Your task to perform on an android device: Empty the shopping cart on walmart.com. Add "usb-c to usb-a" to the cart on walmart.com Image 0: 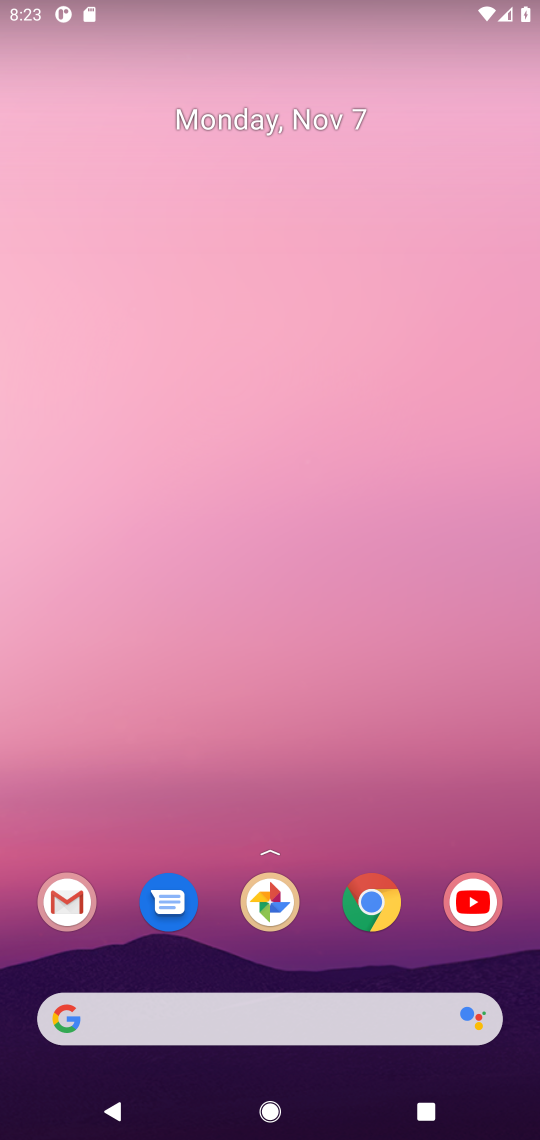
Step 0: click (372, 914)
Your task to perform on an android device: Empty the shopping cart on walmart.com. Add "usb-c to usb-a" to the cart on walmart.com Image 1: 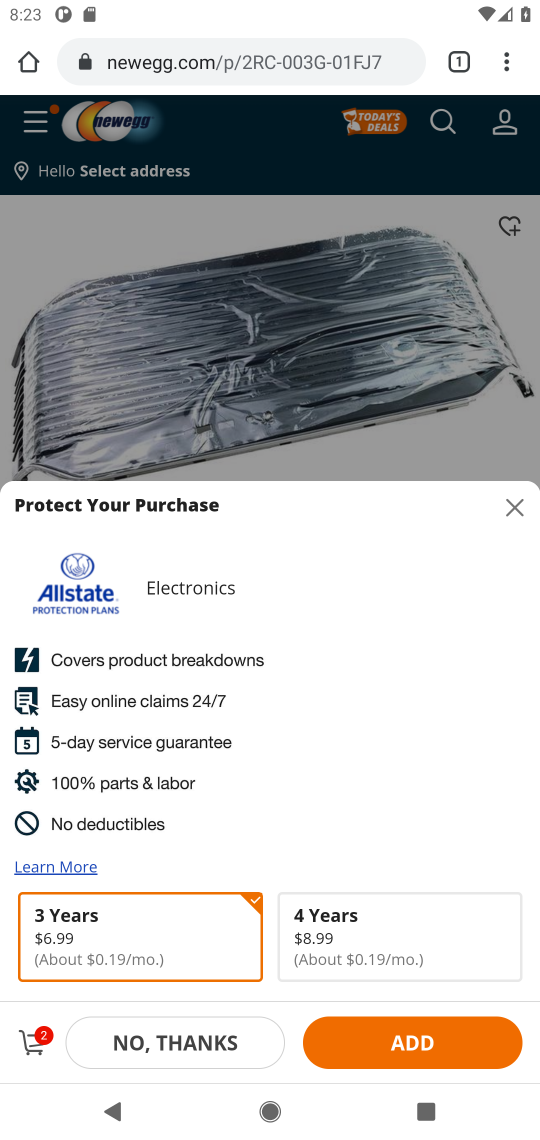
Step 1: click (222, 62)
Your task to perform on an android device: Empty the shopping cart on walmart.com. Add "usb-c to usb-a" to the cart on walmart.com Image 2: 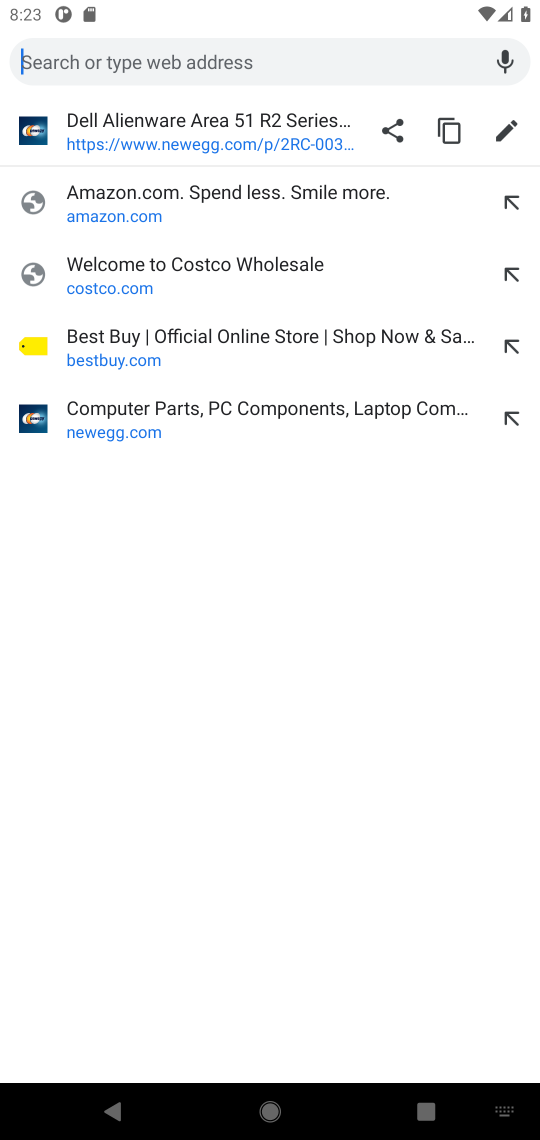
Step 2: type "walmart.com"
Your task to perform on an android device: Empty the shopping cart on walmart.com. Add "usb-c to usb-a" to the cart on walmart.com Image 3: 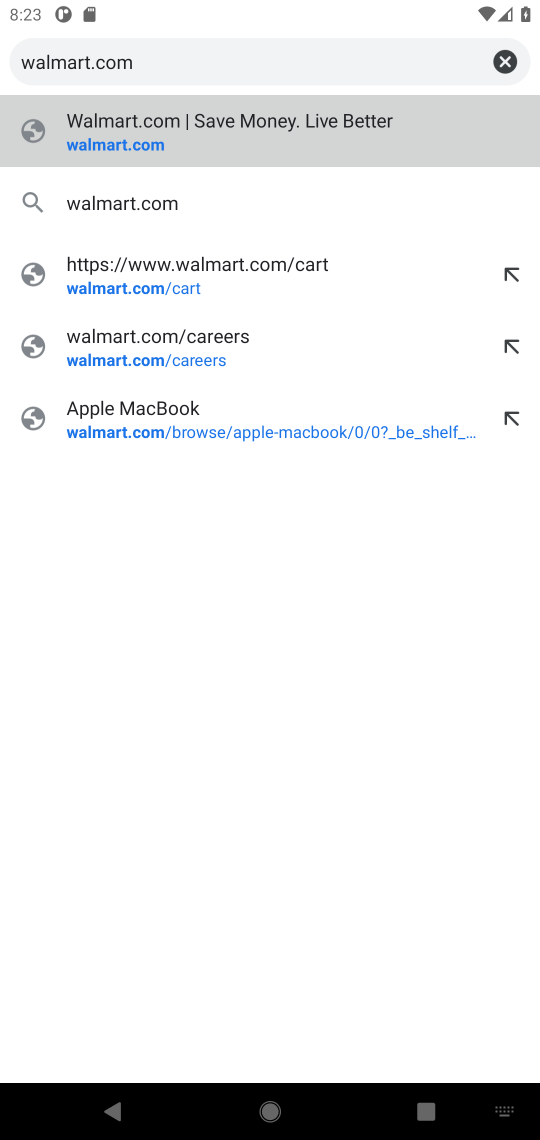
Step 3: click (122, 140)
Your task to perform on an android device: Empty the shopping cart on walmart.com. Add "usb-c to usb-a" to the cart on walmart.com Image 4: 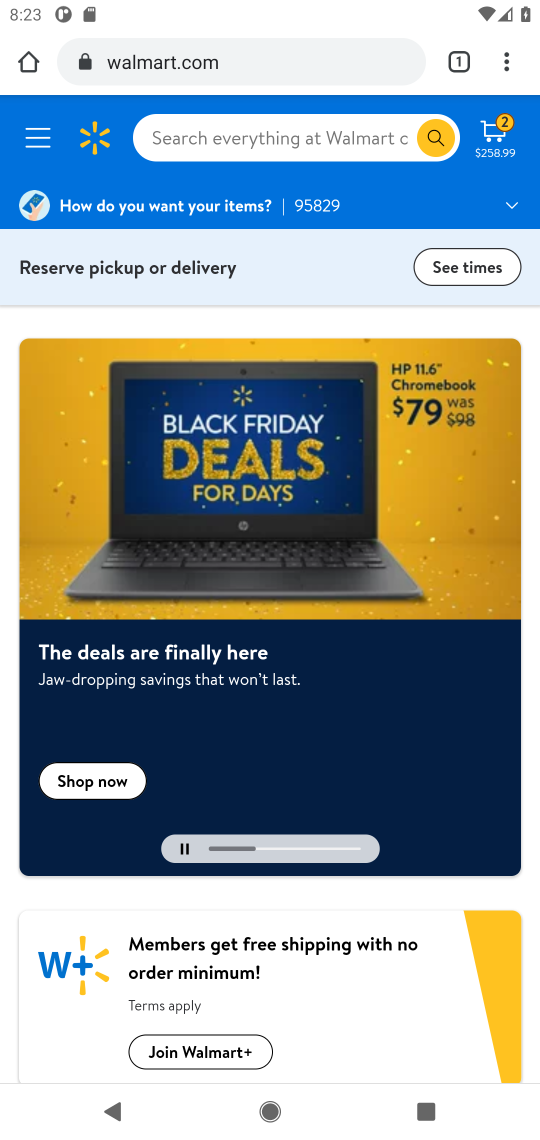
Step 4: click (491, 139)
Your task to perform on an android device: Empty the shopping cart on walmart.com. Add "usb-c to usb-a" to the cart on walmart.com Image 5: 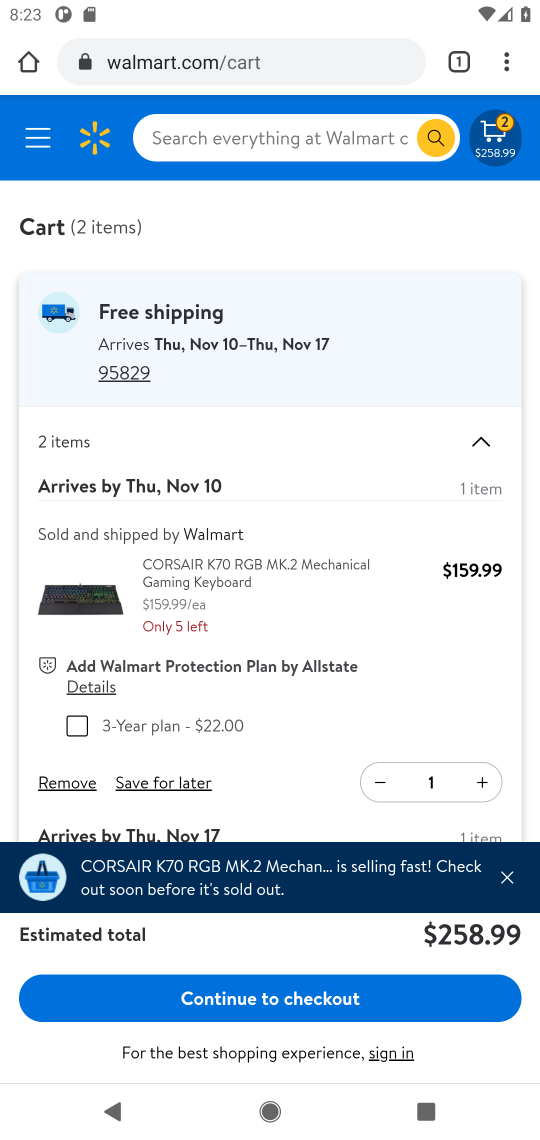
Step 5: click (77, 792)
Your task to perform on an android device: Empty the shopping cart on walmart.com. Add "usb-c to usb-a" to the cart on walmart.com Image 6: 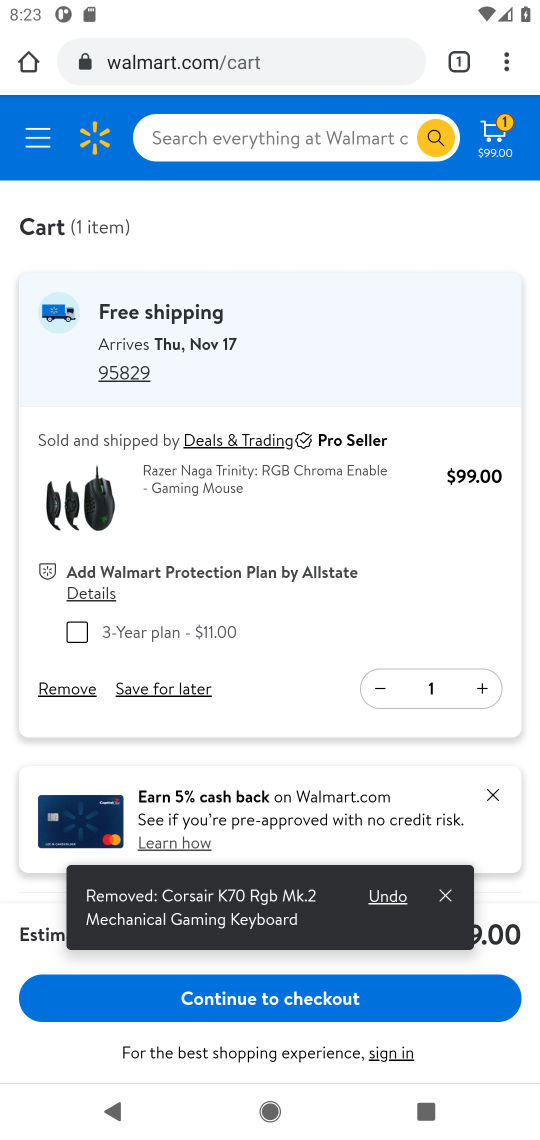
Step 6: click (54, 692)
Your task to perform on an android device: Empty the shopping cart on walmart.com. Add "usb-c to usb-a" to the cart on walmart.com Image 7: 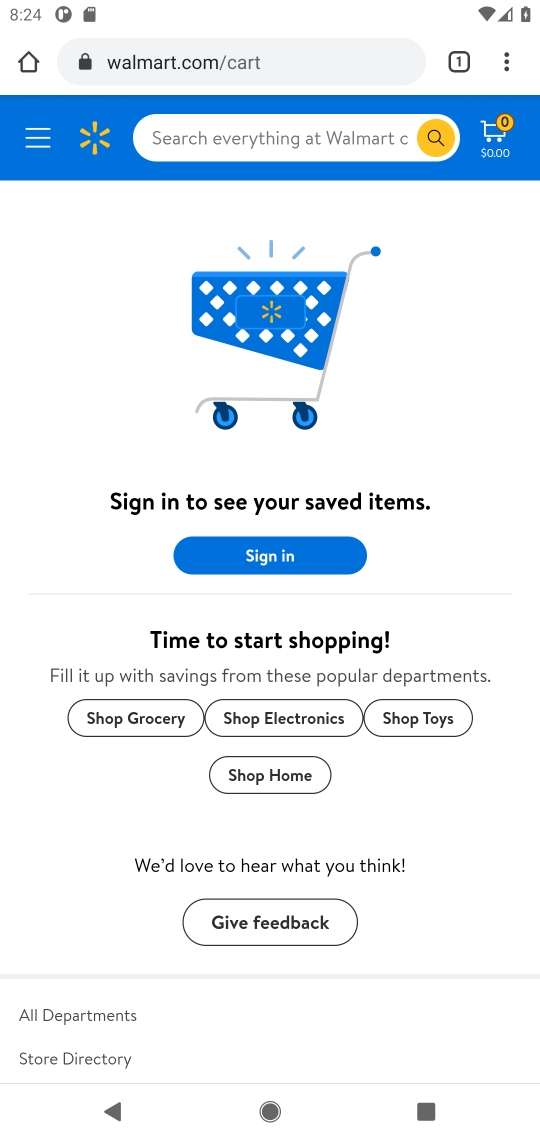
Step 7: click (263, 140)
Your task to perform on an android device: Empty the shopping cart on walmart.com. Add "usb-c to usb-a" to the cart on walmart.com Image 8: 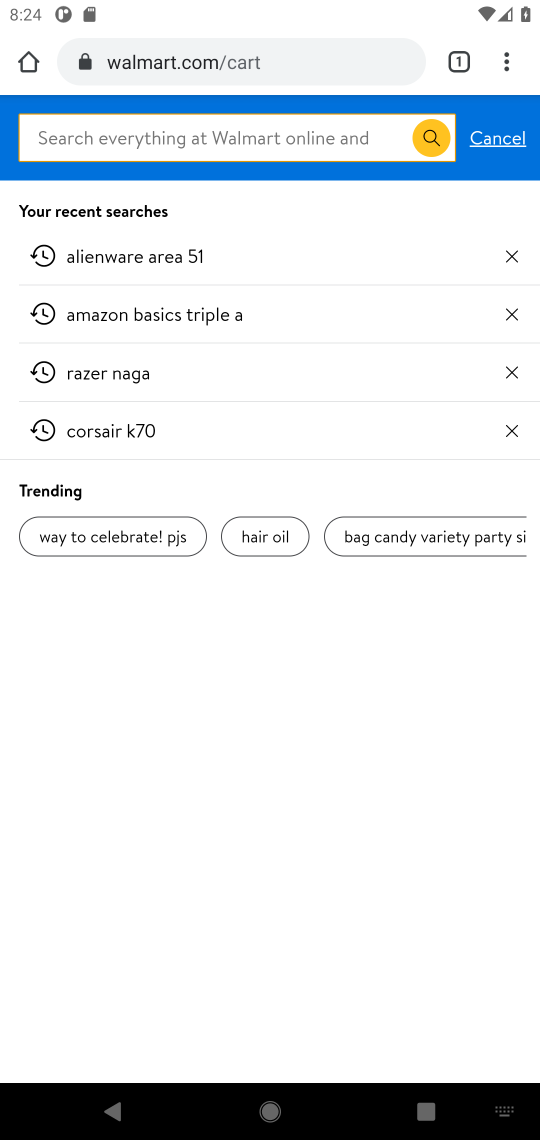
Step 8: type "usb-c to usb-a"
Your task to perform on an android device: Empty the shopping cart on walmart.com. Add "usb-c to usb-a" to the cart on walmart.com Image 9: 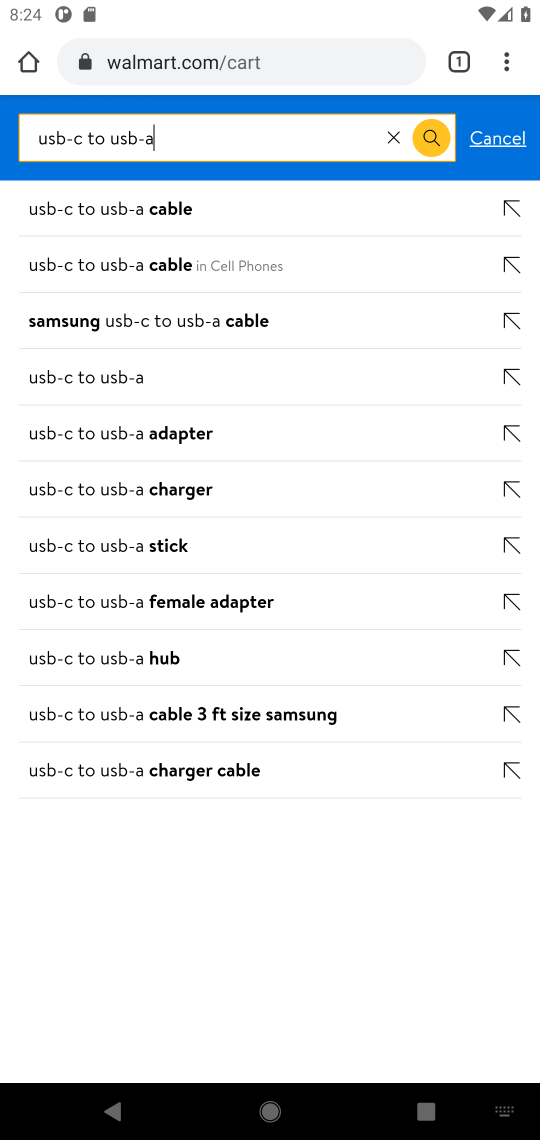
Step 9: click (433, 140)
Your task to perform on an android device: Empty the shopping cart on walmart.com. Add "usb-c to usb-a" to the cart on walmart.com Image 10: 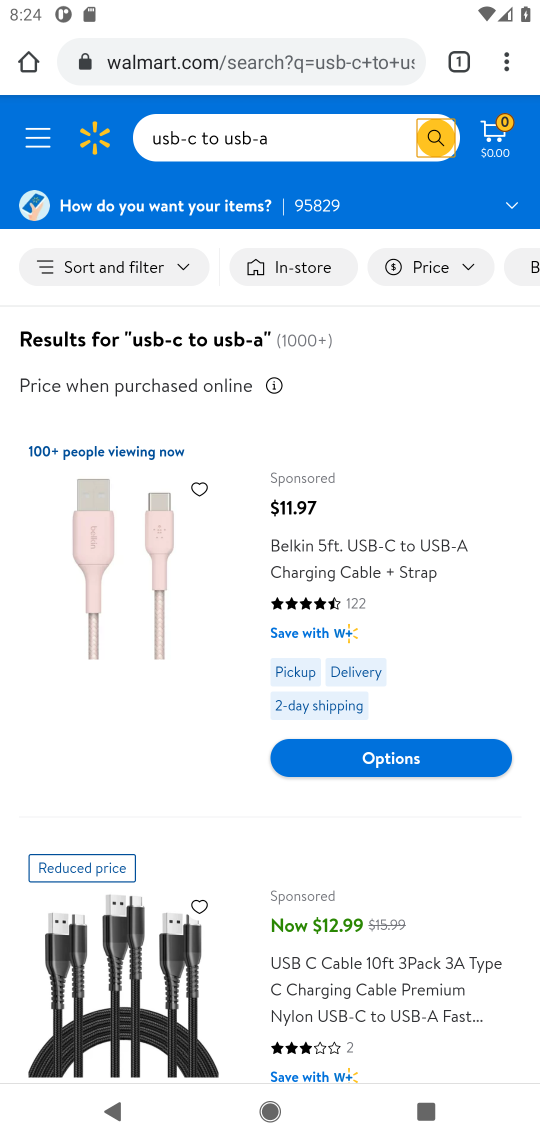
Step 10: click (115, 610)
Your task to perform on an android device: Empty the shopping cart on walmart.com. Add "usb-c to usb-a" to the cart on walmart.com Image 11: 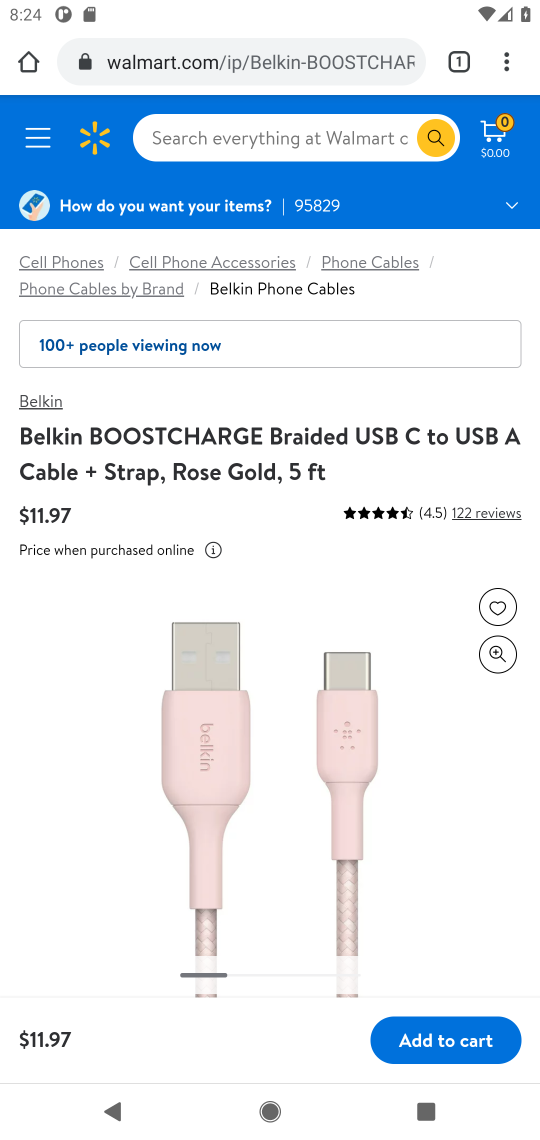
Step 11: click (422, 1040)
Your task to perform on an android device: Empty the shopping cart on walmart.com. Add "usb-c to usb-a" to the cart on walmart.com Image 12: 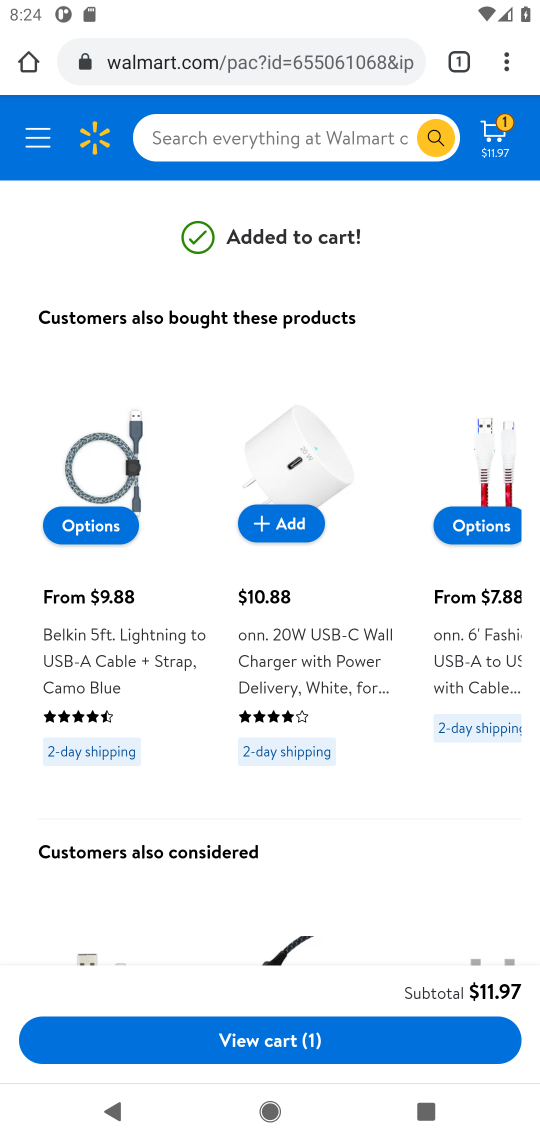
Step 12: task complete